Your task to perform on an android device: turn off picture-in-picture Image 0: 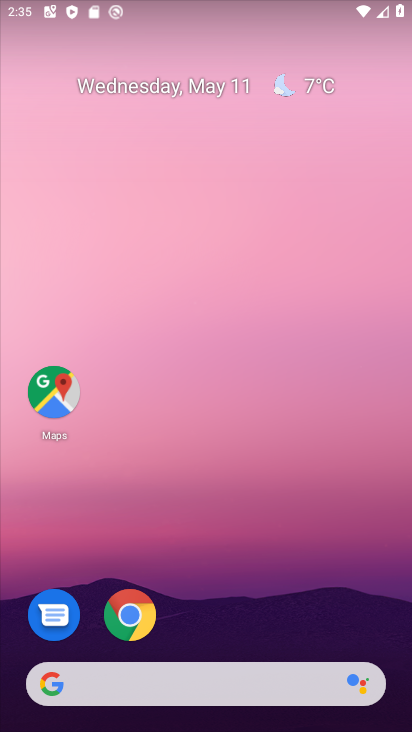
Step 0: click (129, 613)
Your task to perform on an android device: turn off picture-in-picture Image 1: 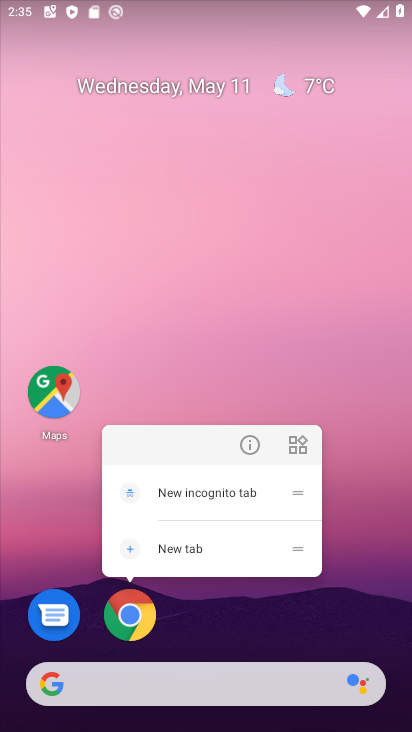
Step 1: click (250, 449)
Your task to perform on an android device: turn off picture-in-picture Image 2: 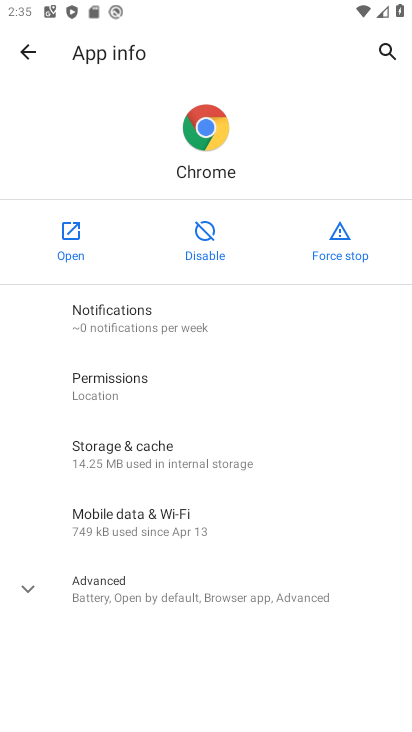
Step 2: click (178, 583)
Your task to perform on an android device: turn off picture-in-picture Image 3: 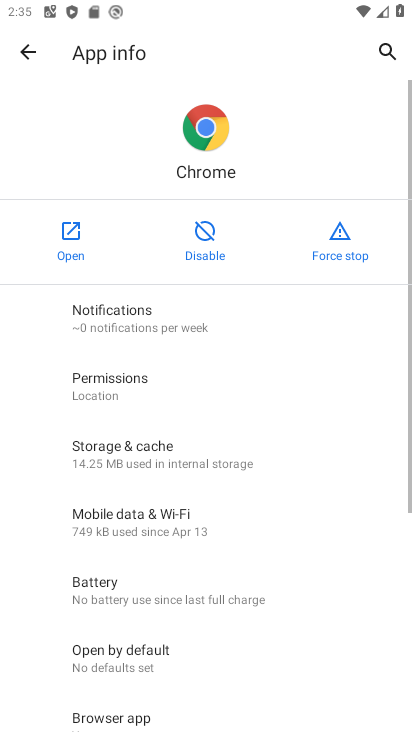
Step 3: drag from (270, 587) to (239, 102)
Your task to perform on an android device: turn off picture-in-picture Image 4: 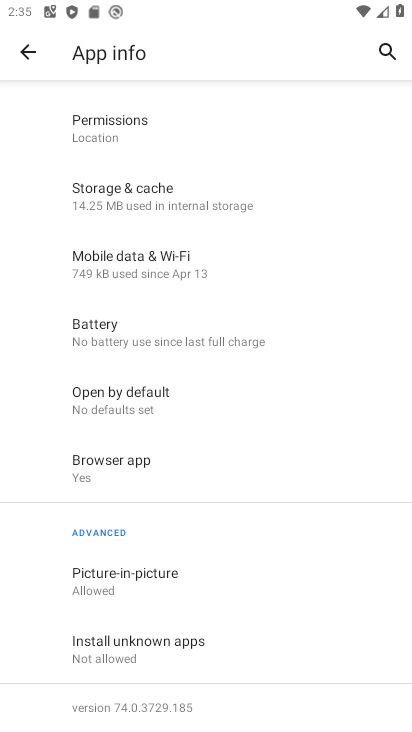
Step 4: click (198, 576)
Your task to perform on an android device: turn off picture-in-picture Image 5: 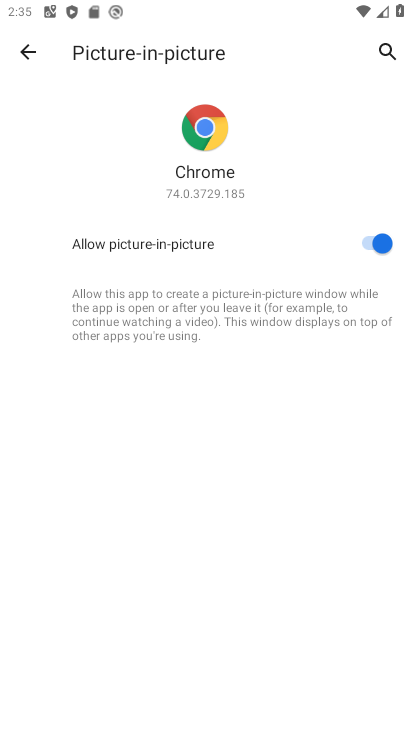
Step 5: click (369, 245)
Your task to perform on an android device: turn off picture-in-picture Image 6: 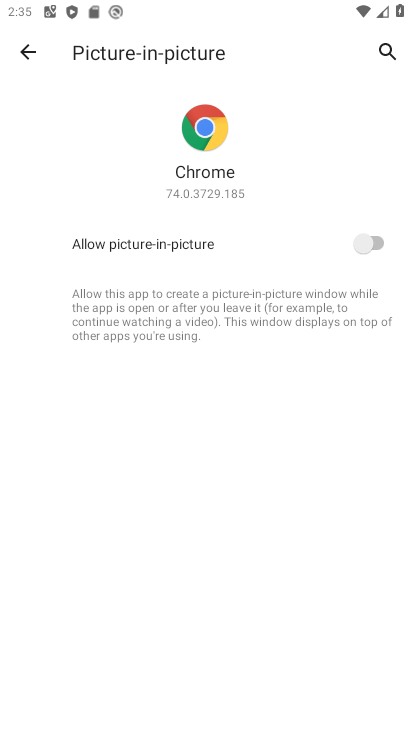
Step 6: task complete